Your task to perform on an android device: Go to wifi settings Image 0: 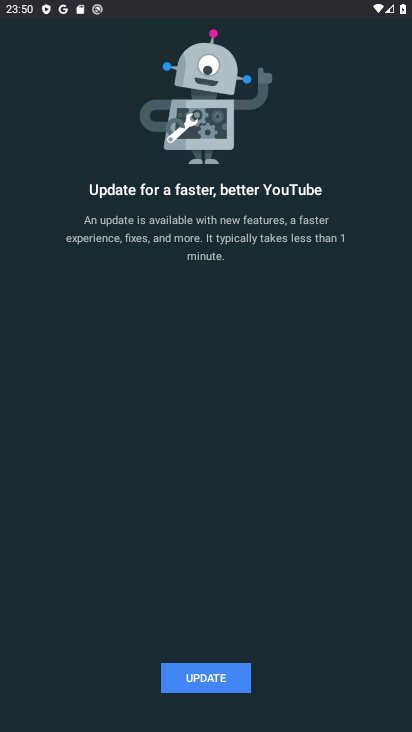
Step 0: press home button
Your task to perform on an android device: Go to wifi settings Image 1: 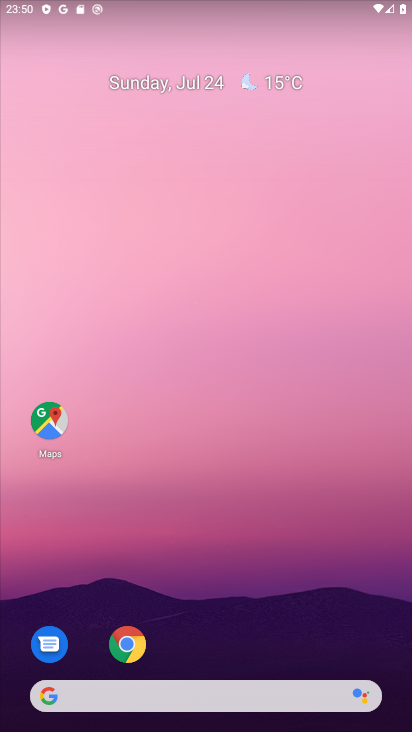
Step 1: drag from (224, 678) to (226, 86)
Your task to perform on an android device: Go to wifi settings Image 2: 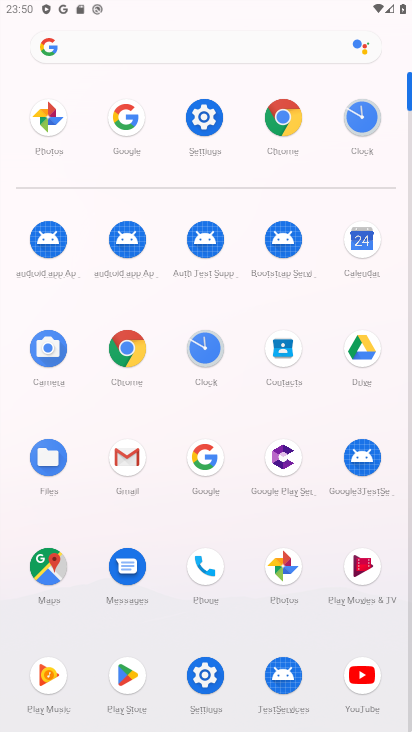
Step 2: click (206, 109)
Your task to perform on an android device: Go to wifi settings Image 3: 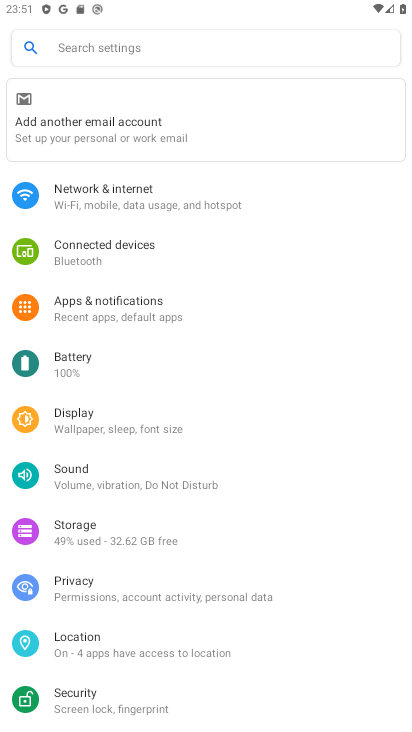
Step 3: click (92, 189)
Your task to perform on an android device: Go to wifi settings Image 4: 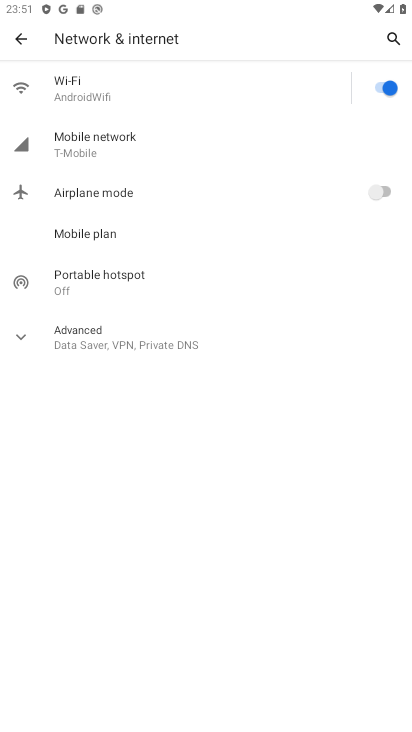
Step 4: click (72, 83)
Your task to perform on an android device: Go to wifi settings Image 5: 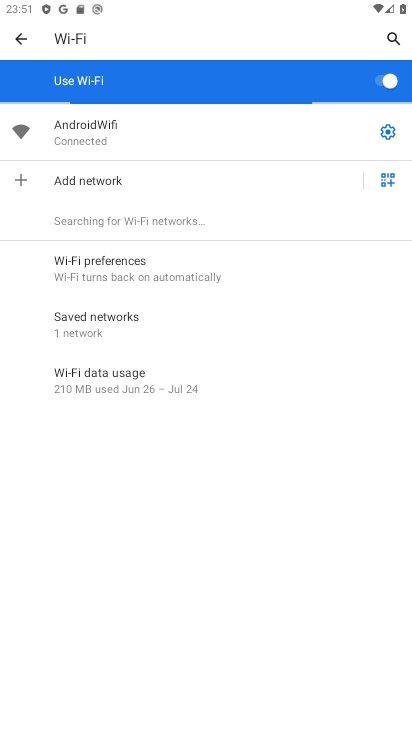
Step 5: task complete